Your task to perform on an android device: remove spam from my inbox in the gmail app Image 0: 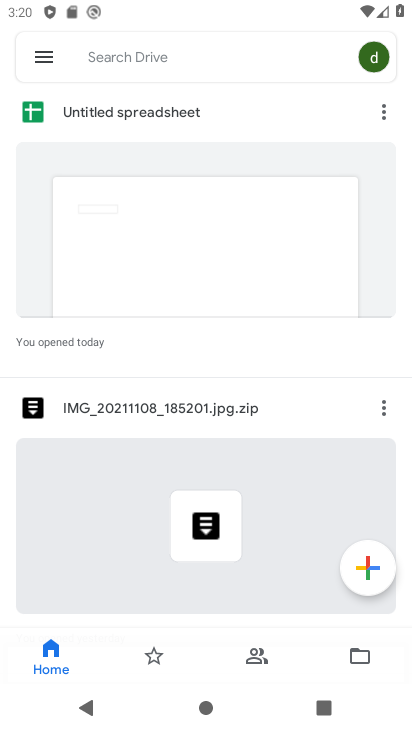
Step 0: press back button
Your task to perform on an android device: remove spam from my inbox in the gmail app Image 1: 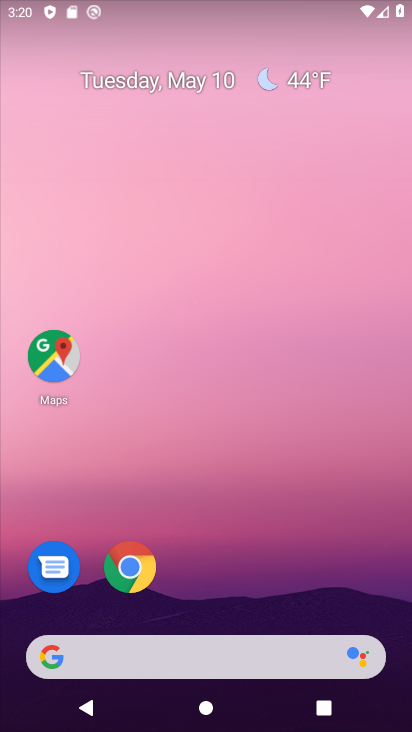
Step 1: drag from (248, 578) to (180, 33)
Your task to perform on an android device: remove spam from my inbox in the gmail app Image 2: 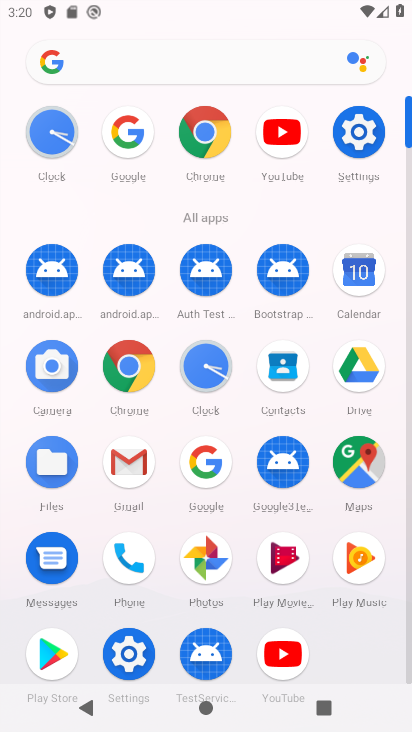
Step 2: click (126, 471)
Your task to perform on an android device: remove spam from my inbox in the gmail app Image 3: 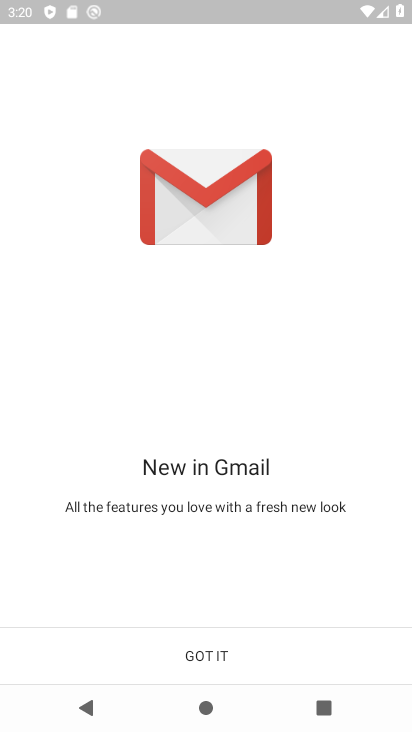
Step 3: click (197, 652)
Your task to perform on an android device: remove spam from my inbox in the gmail app Image 4: 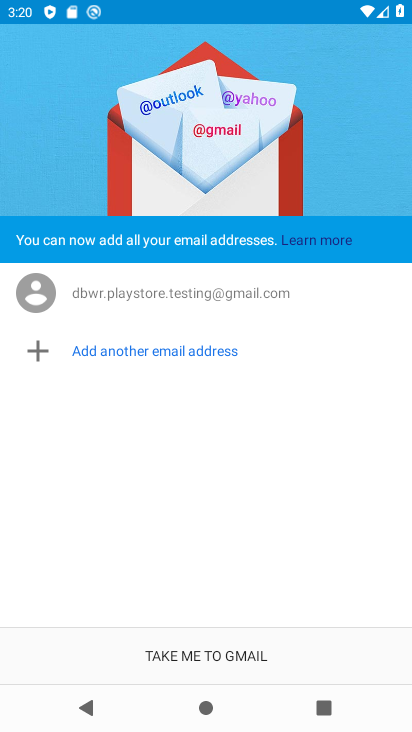
Step 4: click (197, 652)
Your task to perform on an android device: remove spam from my inbox in the gmail app Image 5: 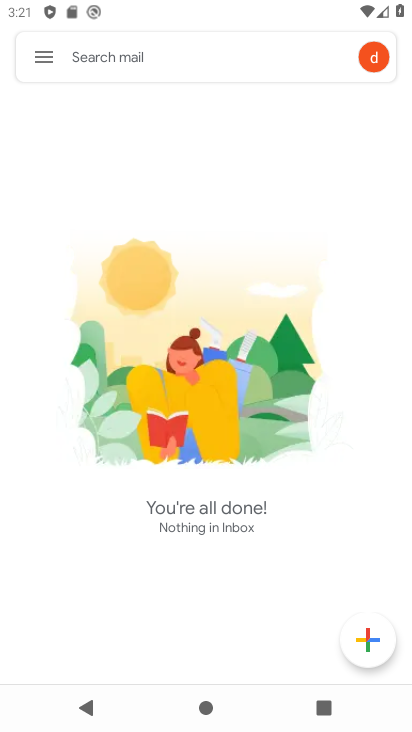
Step 5: click (44, 58)
Your task to perform on an android device: remove spam from my inbox in the gmail app Image 6: 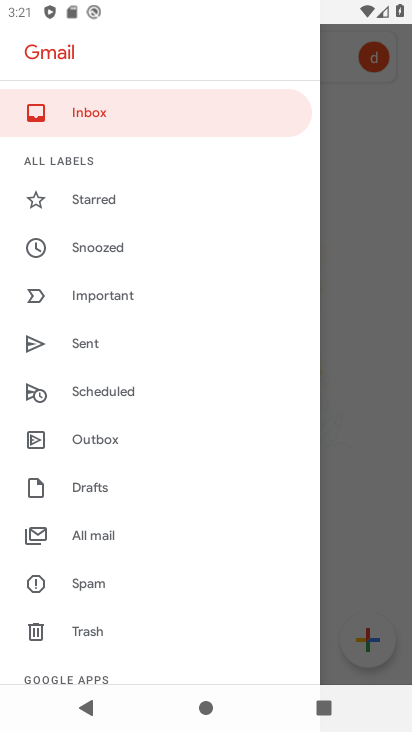
Step 6: click (86, 579)
Your task to perform on an android device: remove spam from my inbox in the gmail app Image 7: 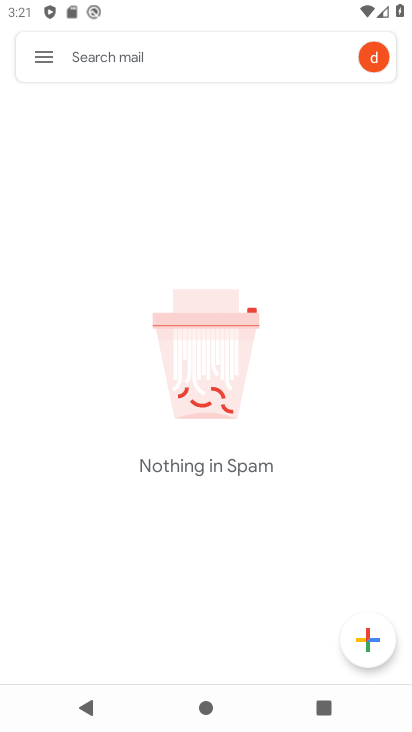
Step 7: task complete